Your task to perform on an android device: Is it going to rain today? Image 0: 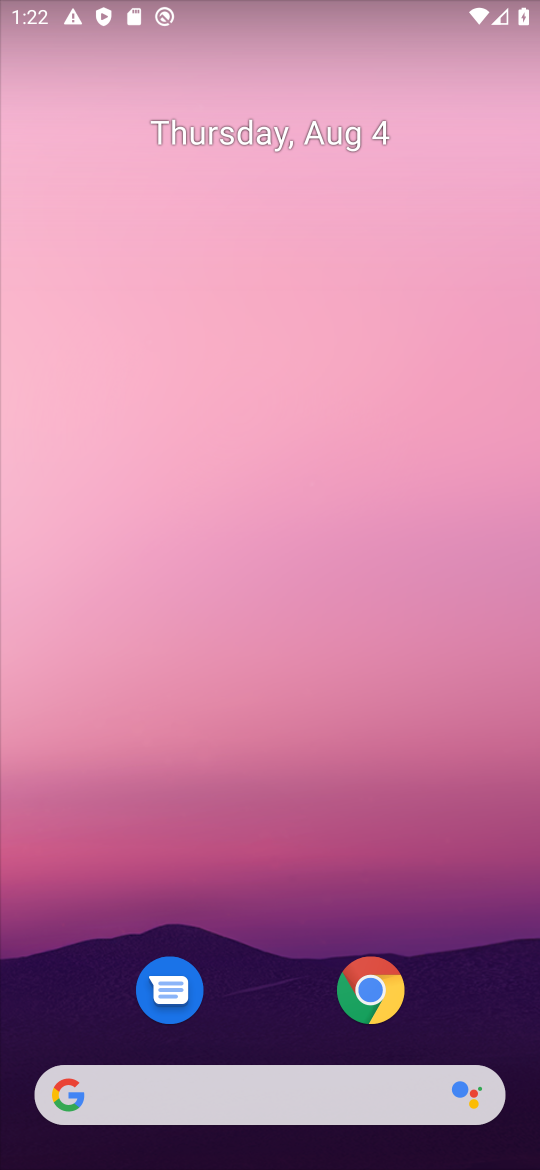
Step 0: drag from (328, 1053) to (272, 161)
Your task to perform on an android device: Is it going to rain today? Image 1: 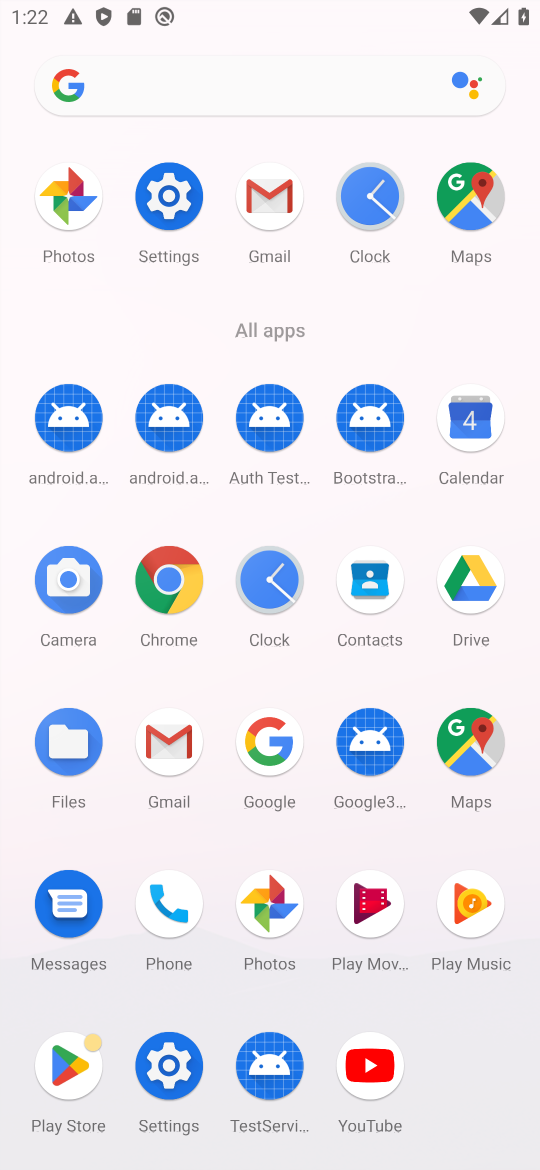
Step 1: click (190, 82)
Your task to perform on an android device: Is it going to rain today? Image 2: 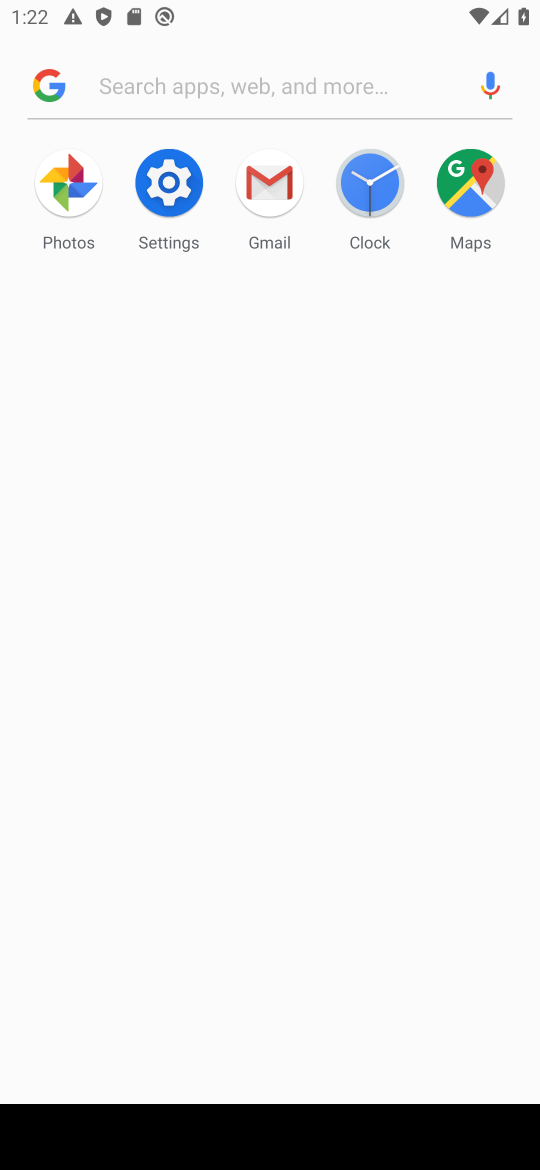
Step 2: type "weather"
Your task to perform on an android device: Is it going to rain today? Image 3: 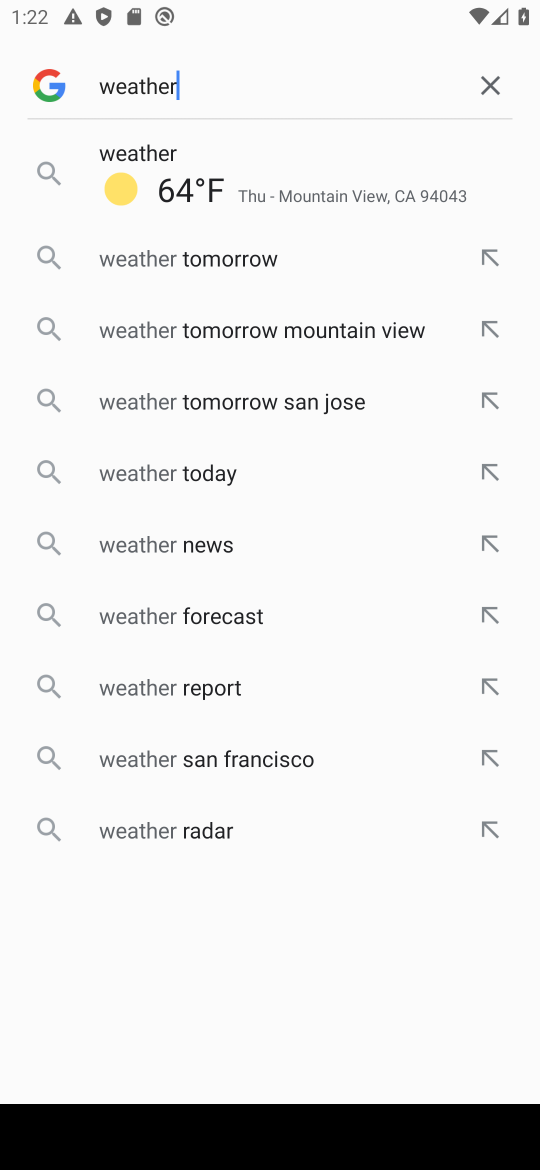
Step 3: click (155, 200)
Your task to perform on an android device: Is it going to rain today? Image 4: 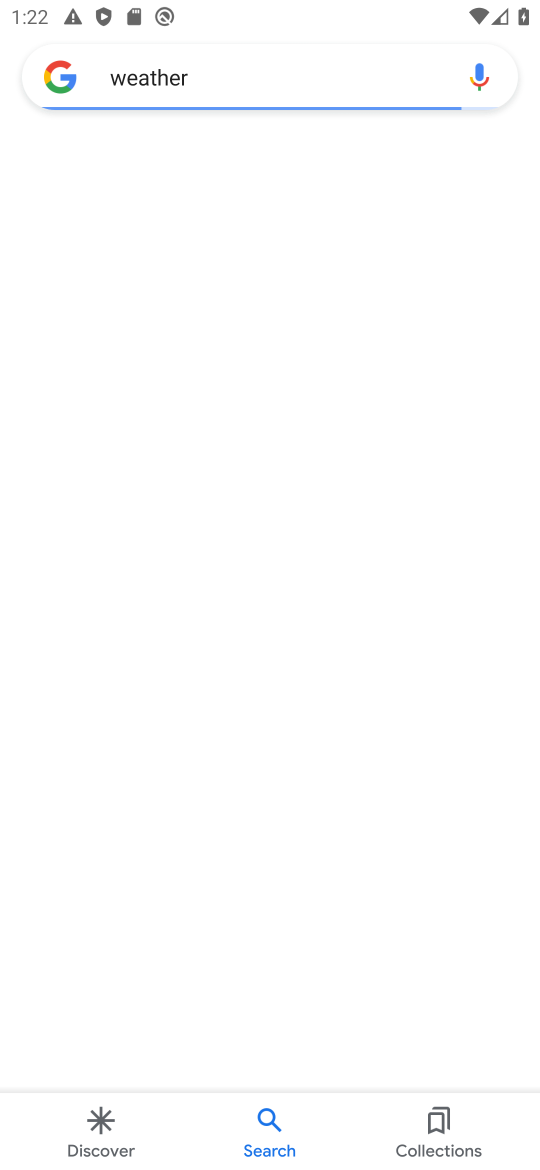
Step 4: task complete